Your task to perform on an android device: turn on data saver in the chrome app Image 0: 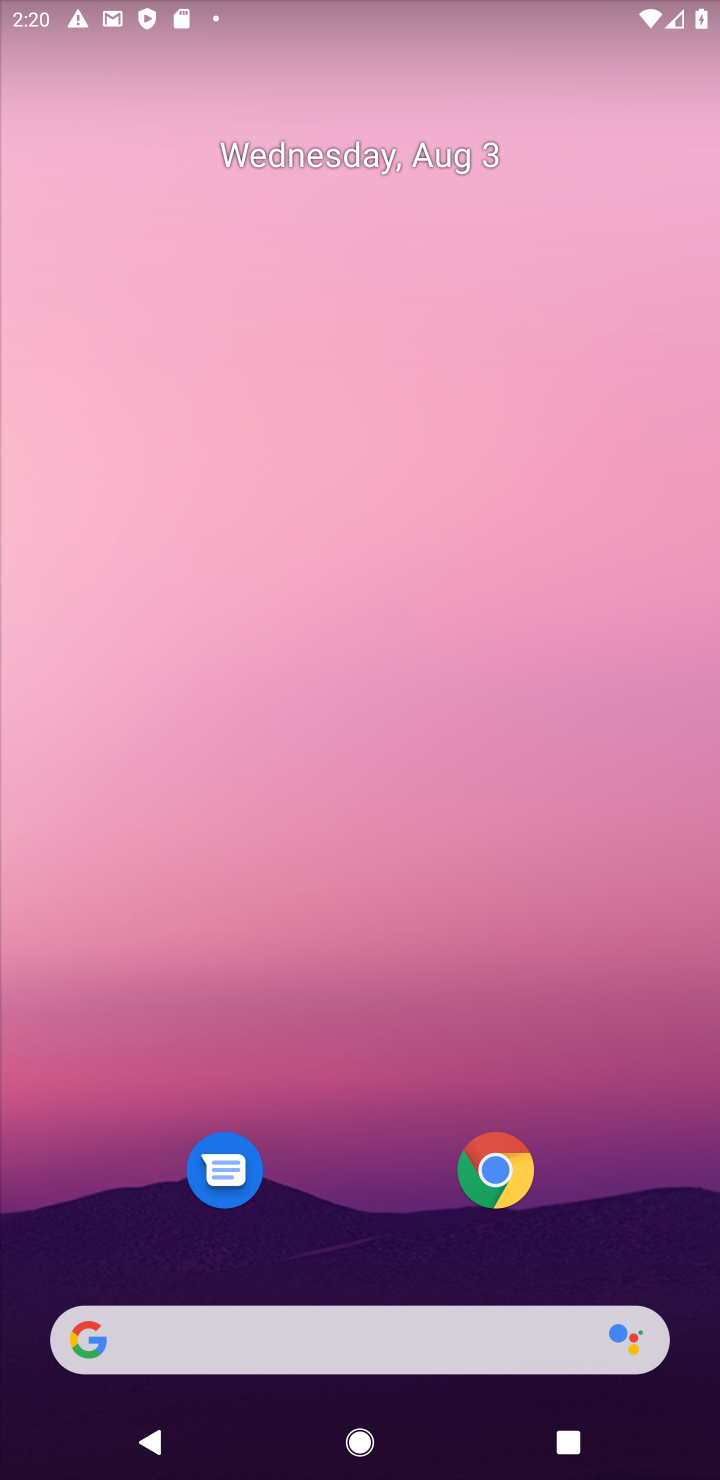
Step 0: click (479, 1176)
Your task to perform on an android device: turn on data saver in the chrome app Image 1: 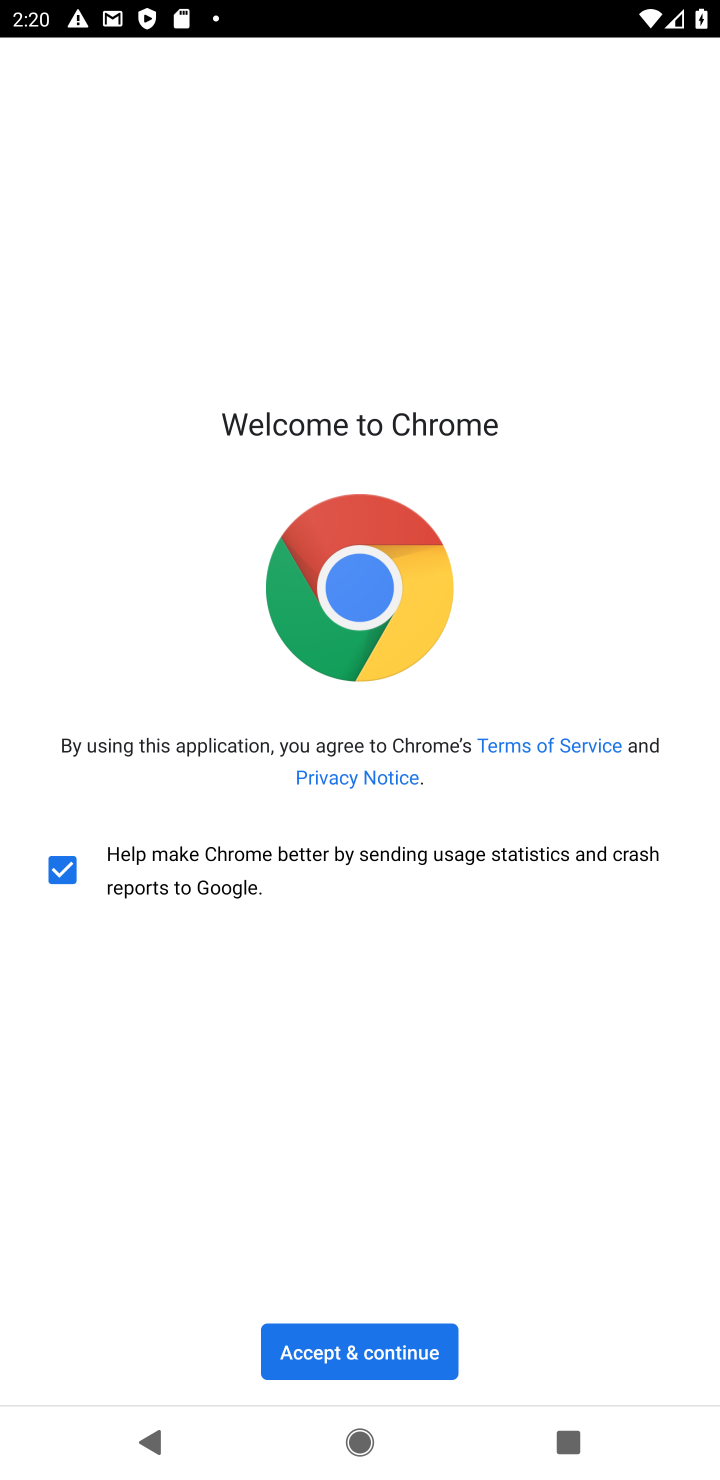
Step 1: click (344, 1350)
Your task to perform on an android device: turn on data saver in the chrome app Image 2: 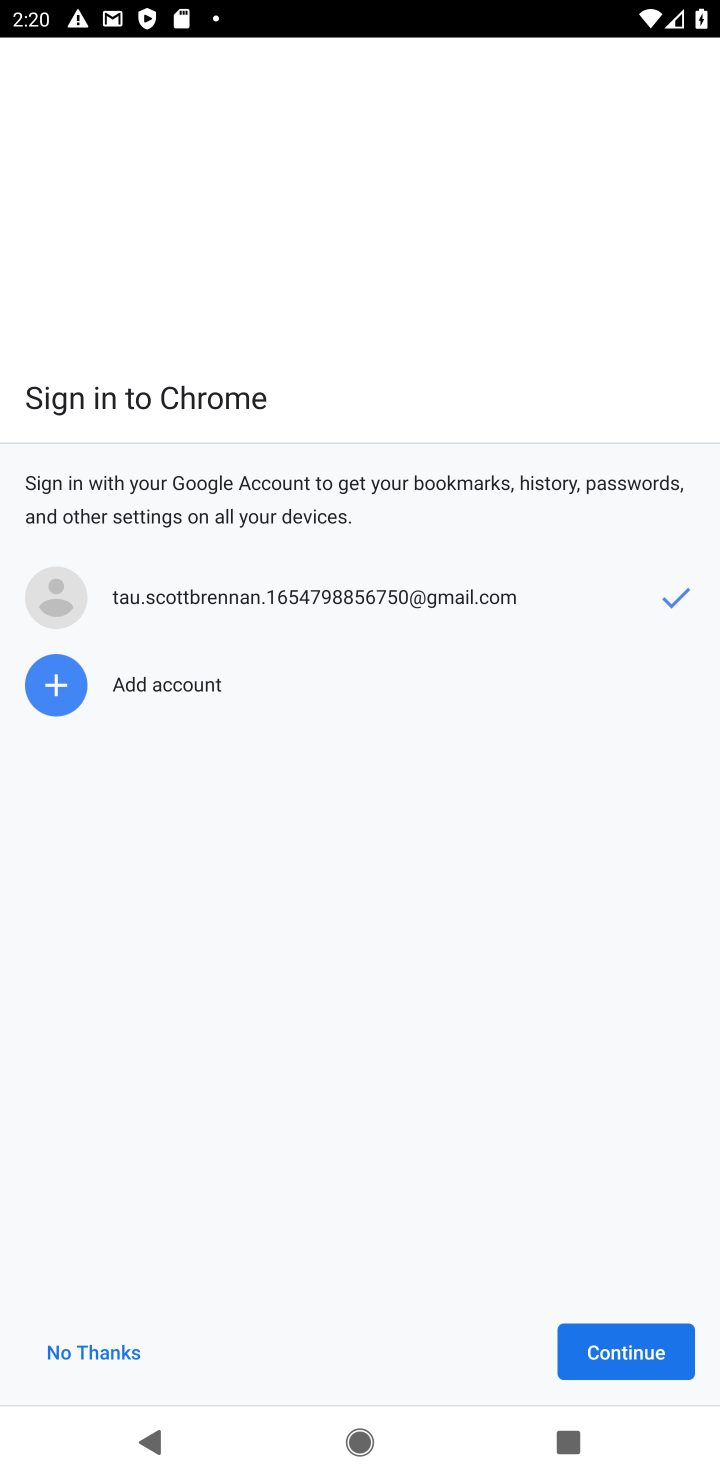
Step 2: click (646, 1344)
Your task to perform on an android device: turn on data saver in the chrome app Image 3: 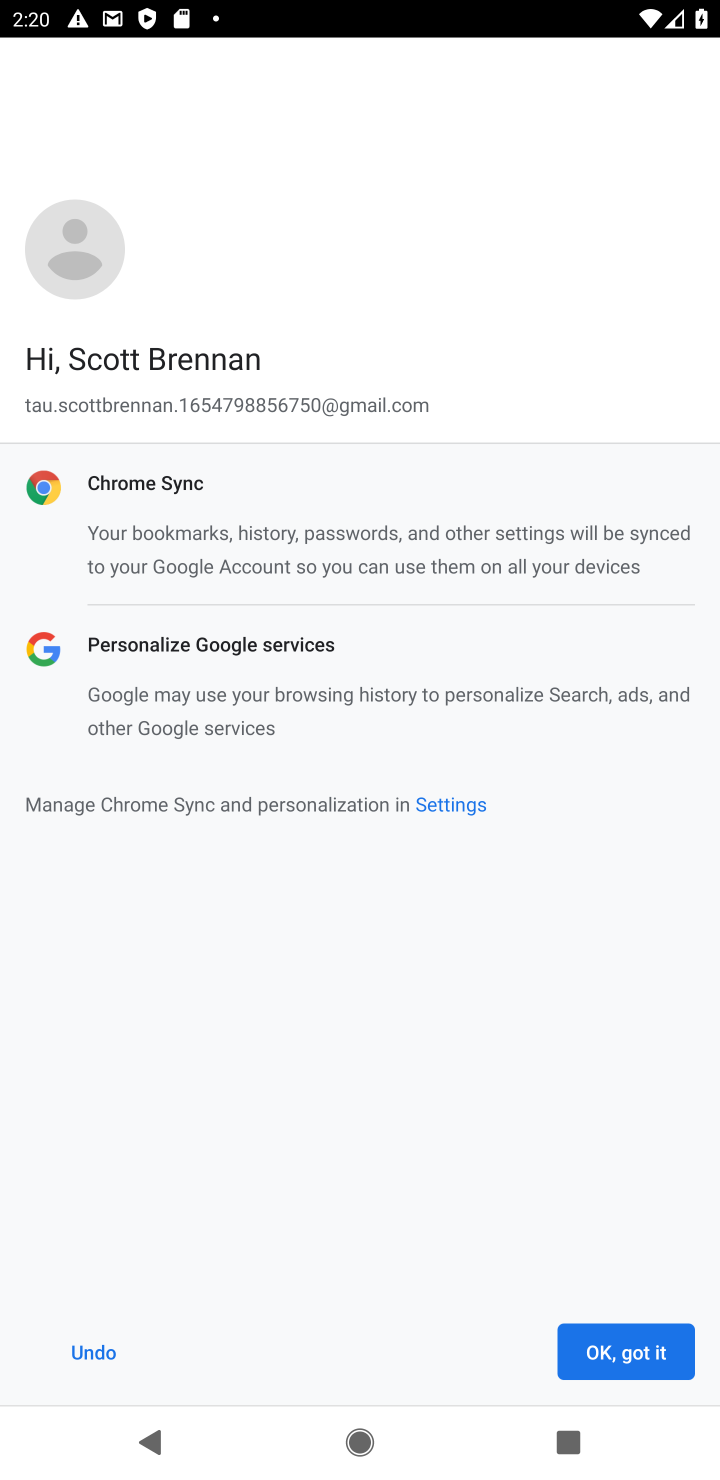
Step 3: click (642, 1344)
Your task to perform on an android device: turn on data saver in the chrome app Image 4: 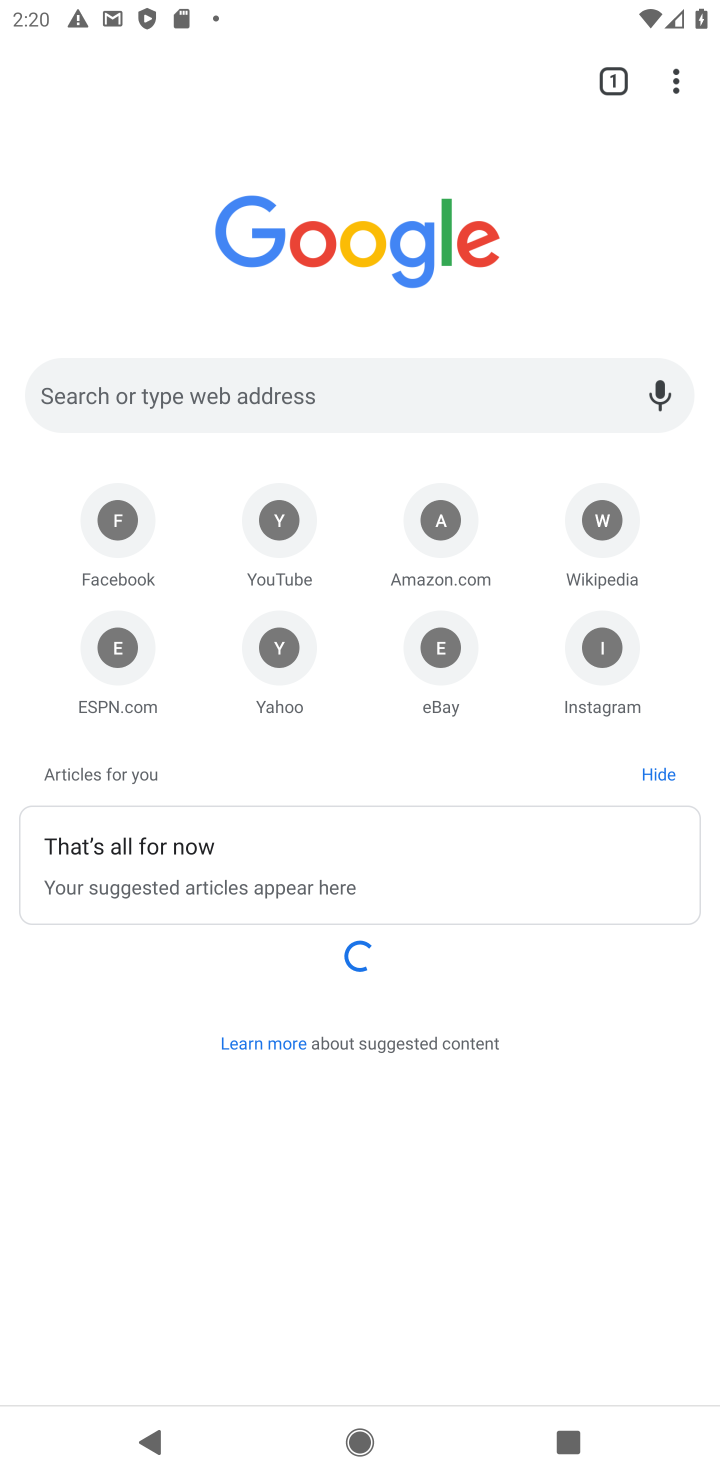
Step 4: click (683, 83)
Your task to perform on an android device: turn on data saver in the chrome app Image 5: 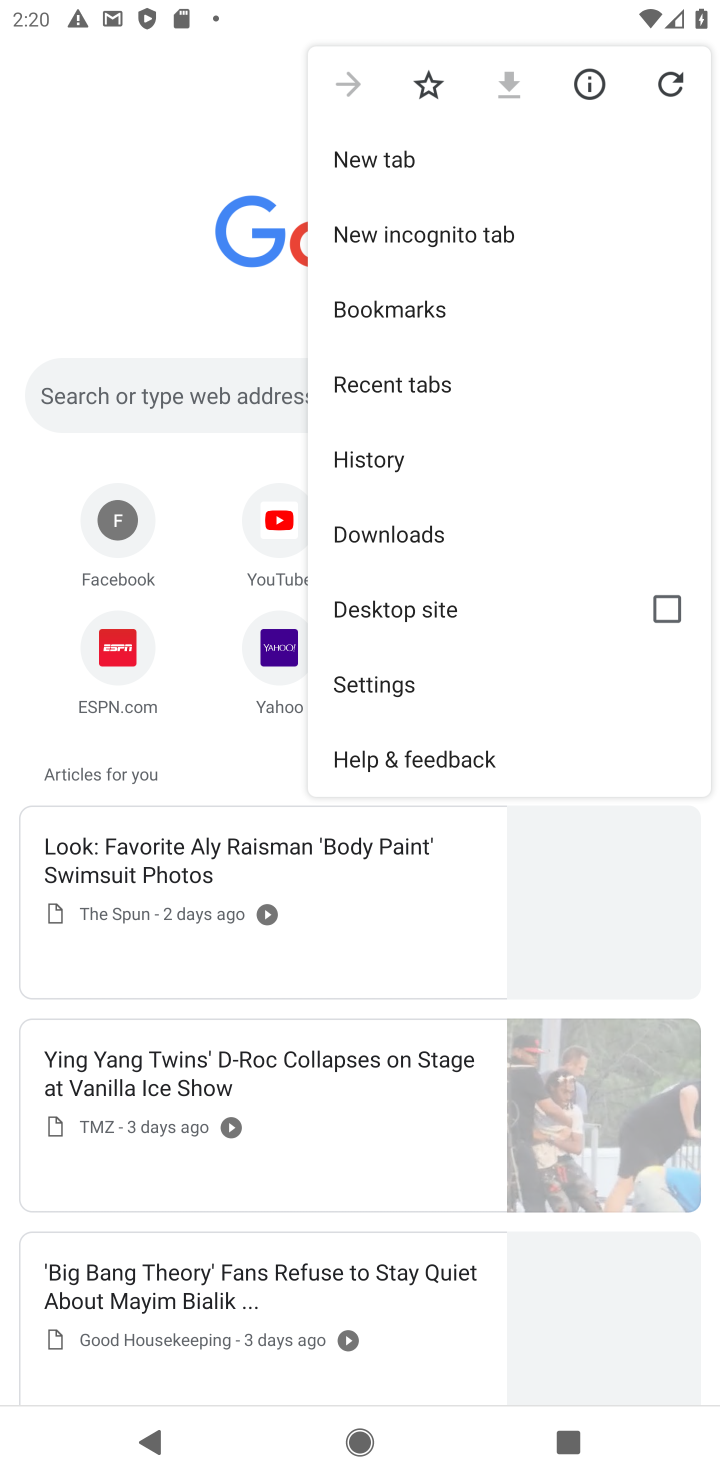
Step 5: click (408, 680)
Your task to perform on an android device: turn on data saver in the chrome app Image 6: 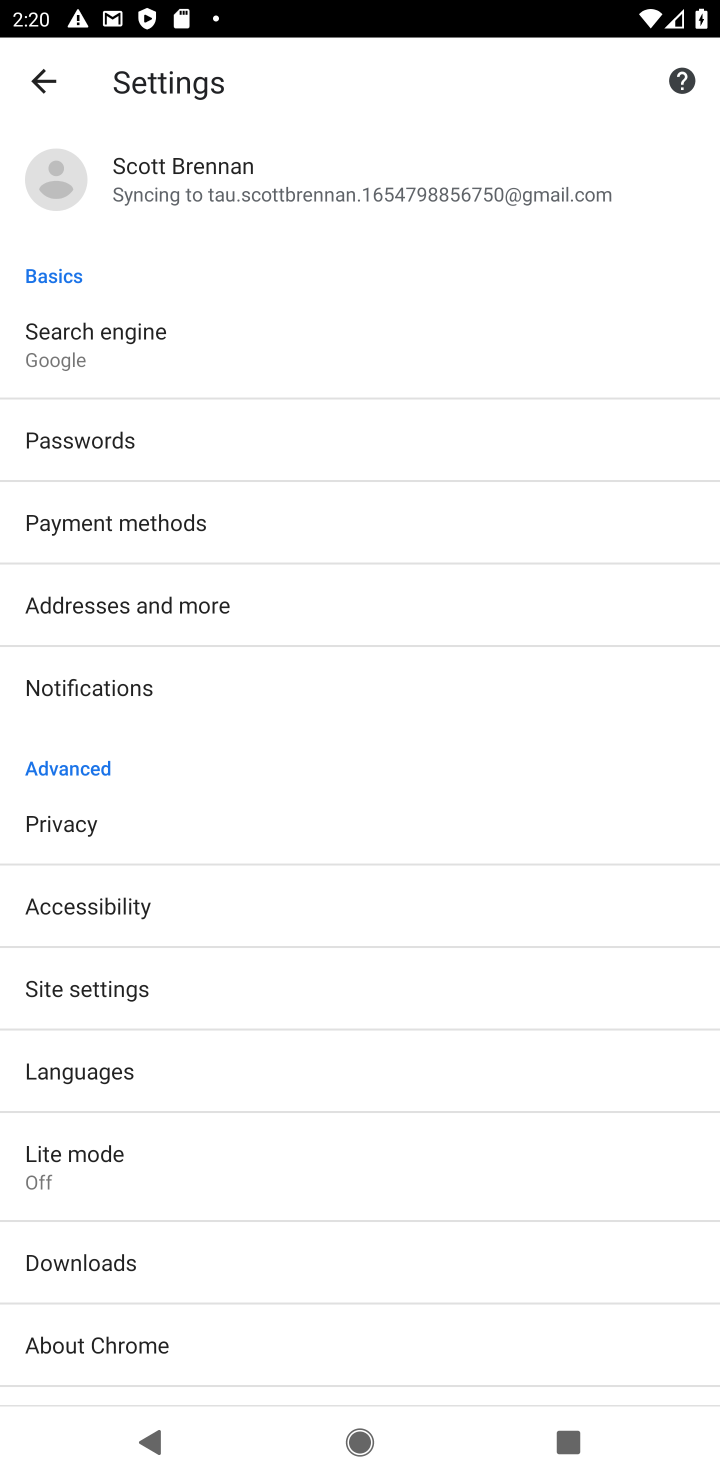
Step 6: click (144, 1174)
Your task to perform on an android device: turn on data saver in the chrome app Image 7: 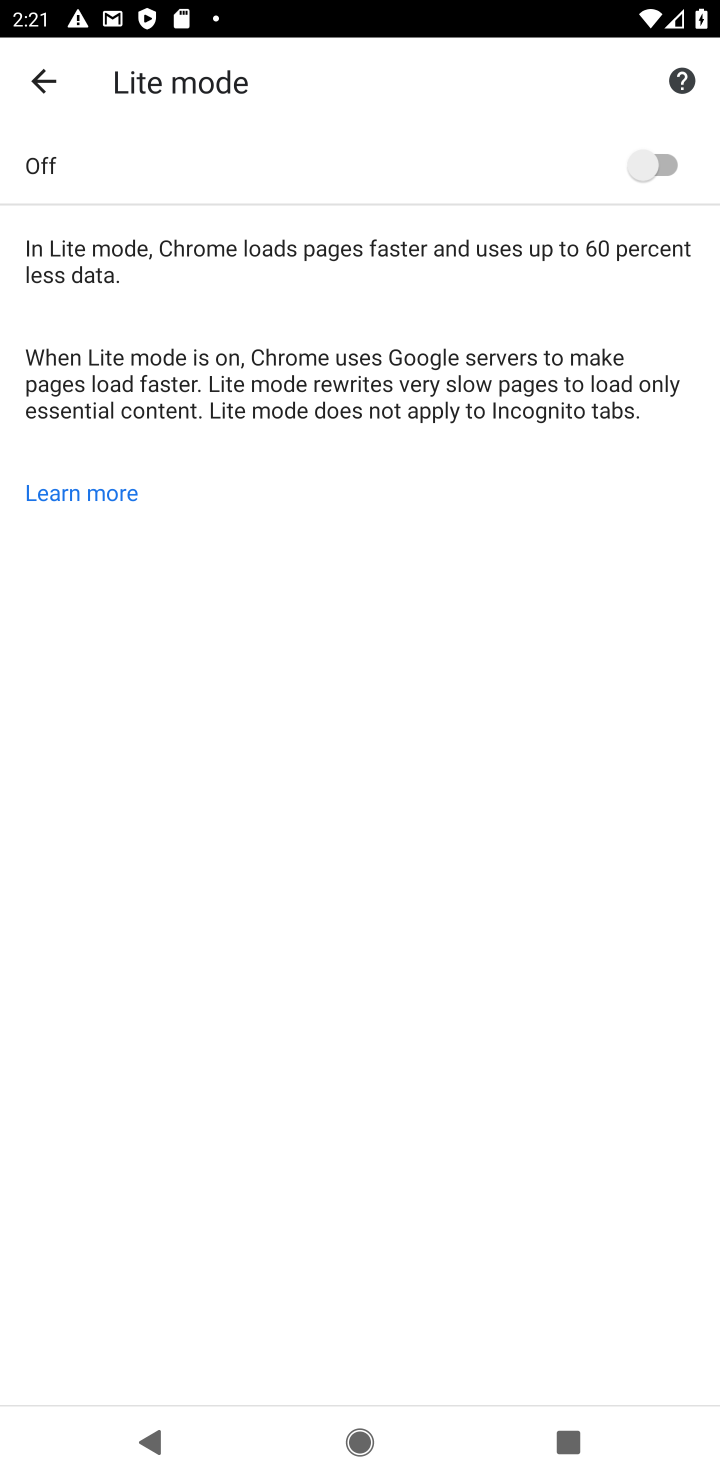
Step 7: click (657, 175)
Your task to perform on an android device: turn on data saver in the chrome app Image 8: 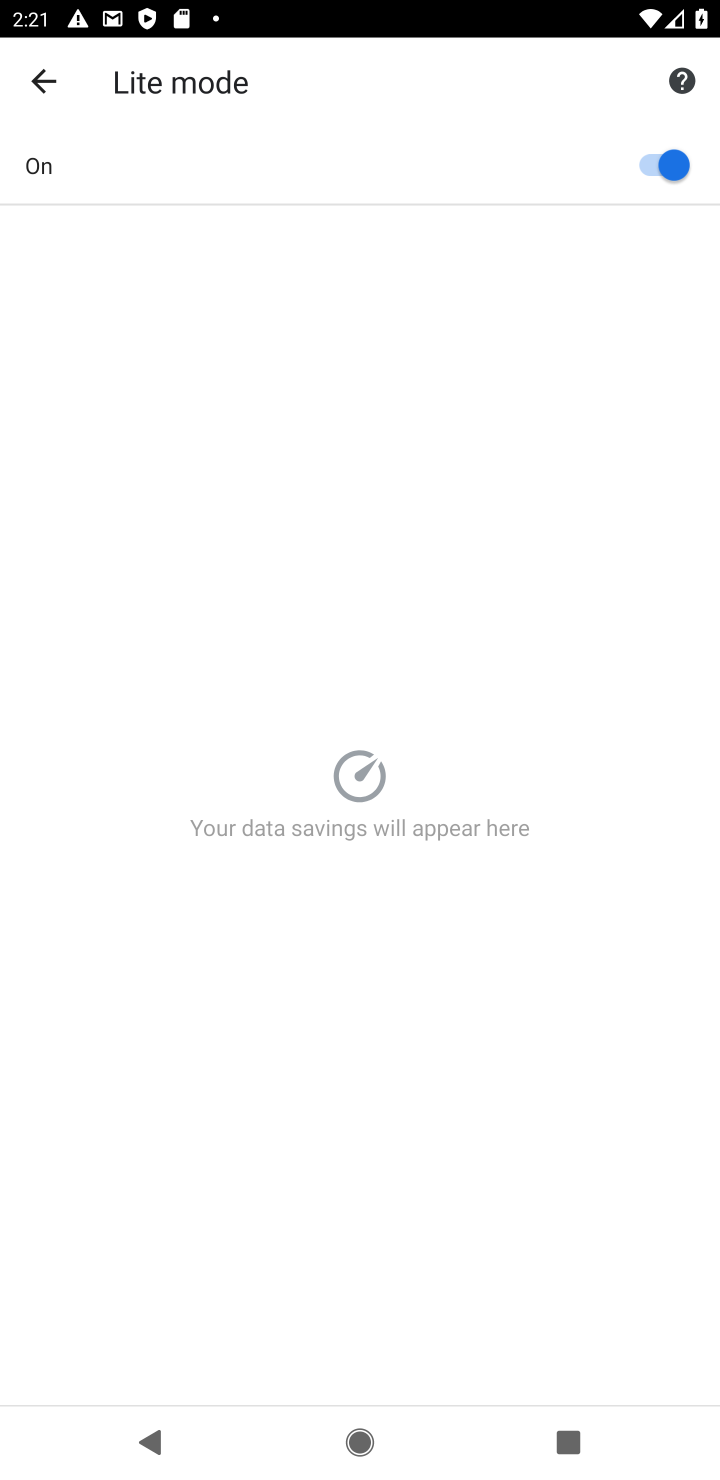
Step 8: task complete